Your task to perform on an android device: turn off sleep mode Image 0: 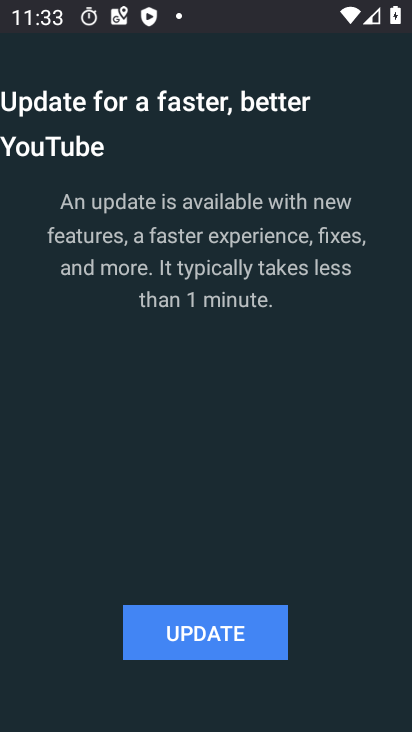
Step 0: press back button
Your task to perform on an android device: turn off sleep mode Image 1: 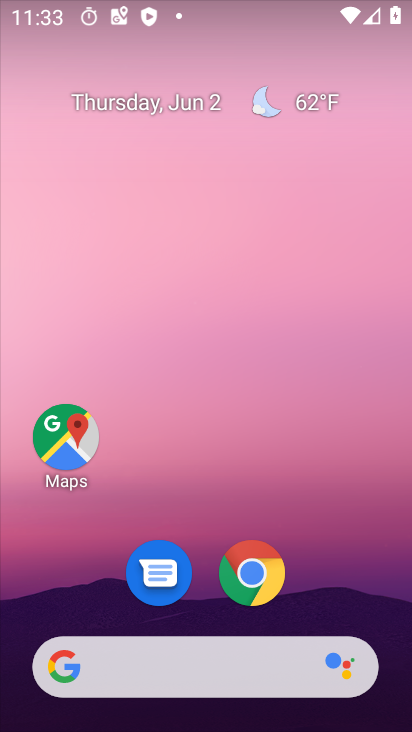
Step 1: drag from (263, 717) to (358, 90)
Your task to perform on an android device: turn off sleep mode Image 2: 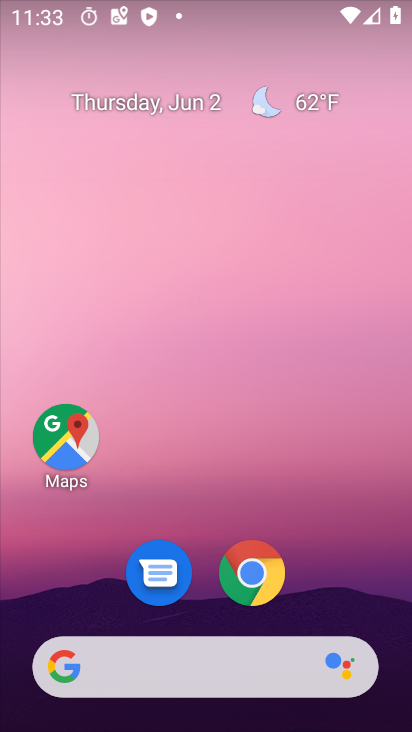
Step 2: drag from (257, 641) to (282, 70)
Your task to perform on an android device: turn off sleep mode Image 3: 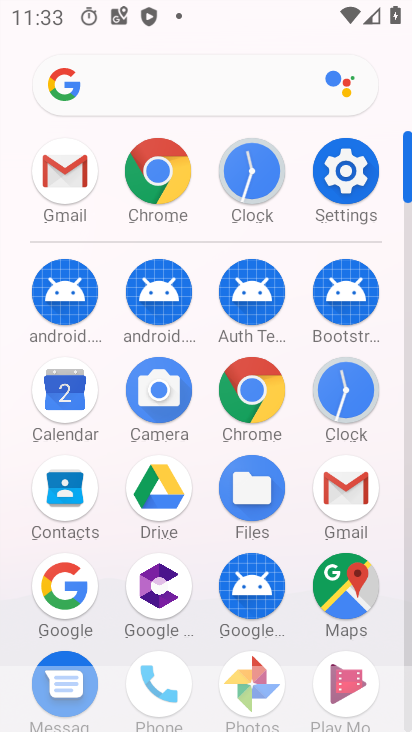
Step 3: click (325, 190)
Your task to perform on an android device: turn off sleep mode Image 4: 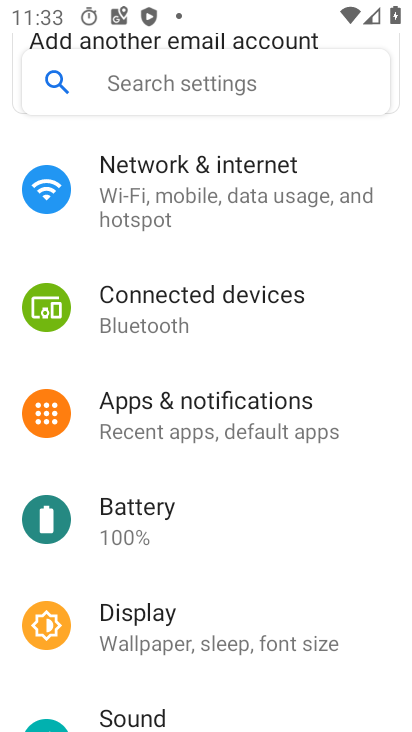
Step 4: drag from (152, 670) to (182, 556)
Your task to perform on an android device: turn off sleep mode Image 5: 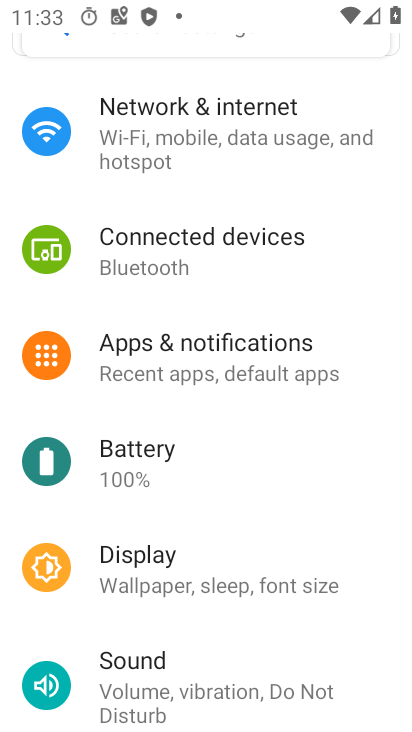
Step 5: click (170, 567)
Your task to perform on an android device: turn off sleep mode Image 6: 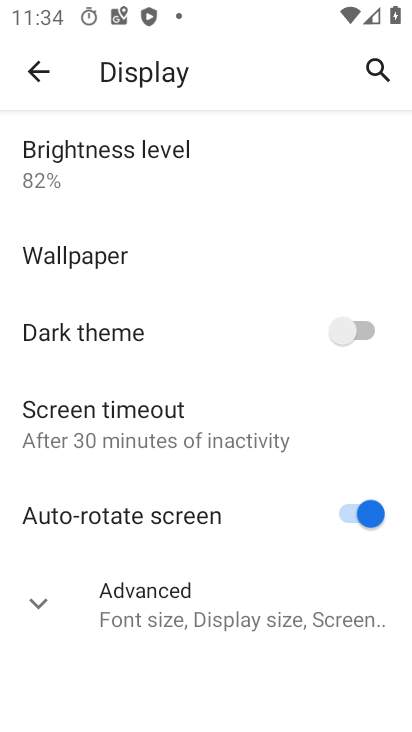
Step 6: task complete